Your task to perform on an android device: open chrome privacy settings Image 0: 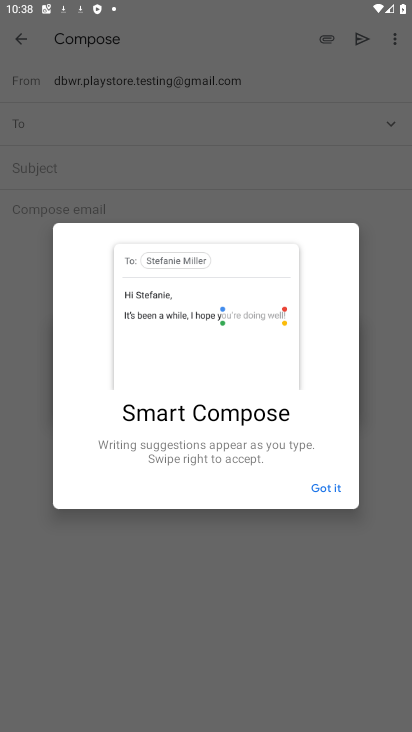
Step 0: press home button
Your task to perform on an android device: open chrome privacy settings Image 1: 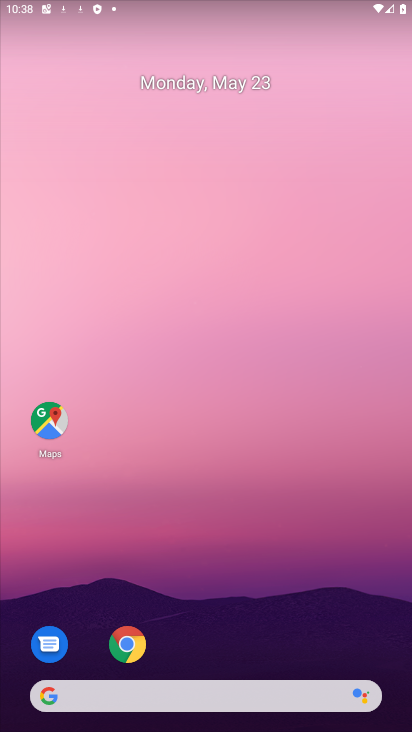
Step 1: drag from (270, 706) to (280, 76)
Your task to perform on an android device: open chrome privacy settings Image 2: 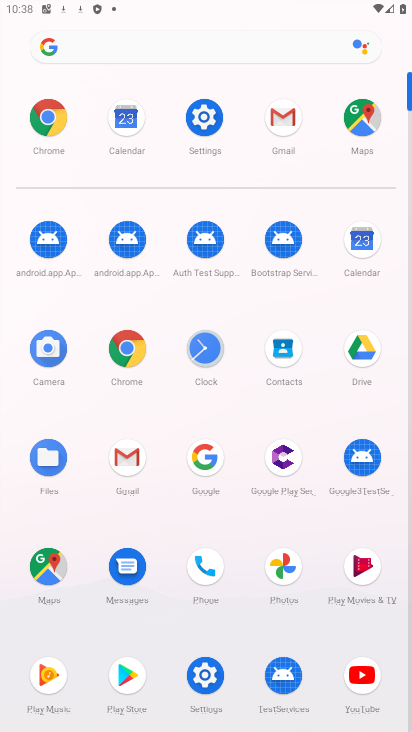
Step 2: click (204, 114)
Your task to perform on an android device: open chrome privacy settings Image 3: 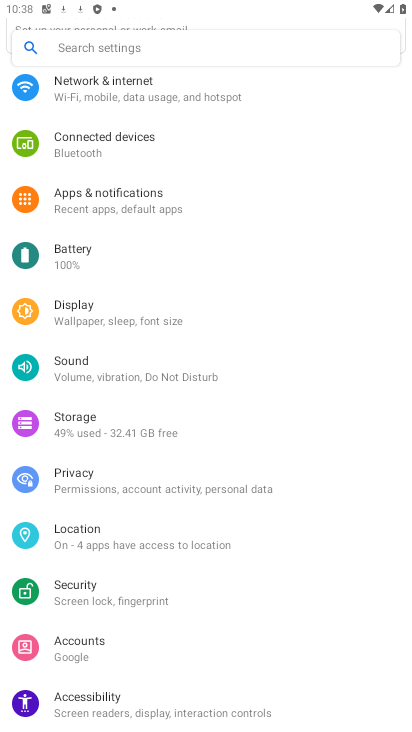
Step 3: click (169, 61)
Your task to perform on an android device: open chrome privacy settings Image 4: 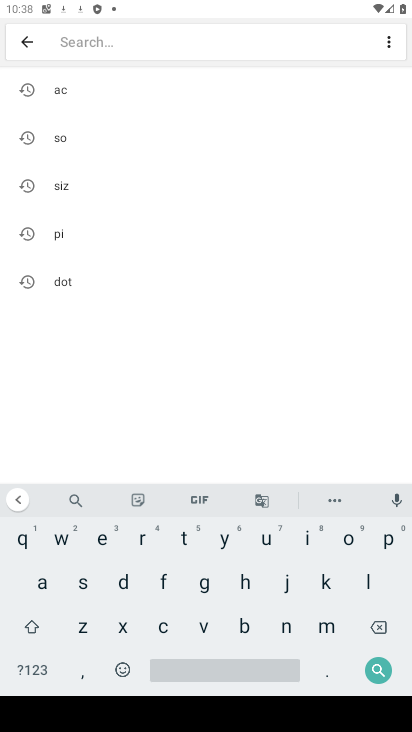
Step 4: press home button
Your task to perform on an android device: open chrome privacy settings Image 5: 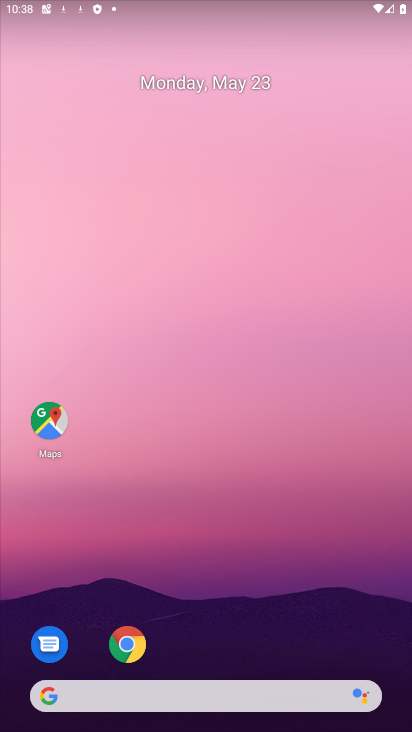
Step 5: drag from (254, 715) to (260, 75)
Your task to perform on an android device: open chrome privacy settings Image 6: 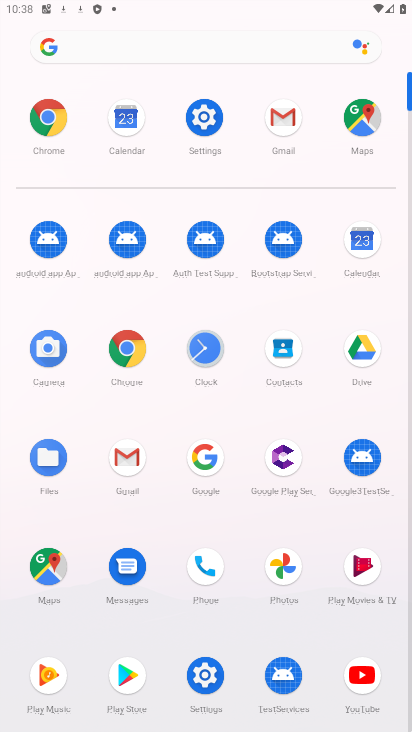
Step 6: click (46, 124)
Your task to perform on an android device: open chrome privacy settings Image 7: 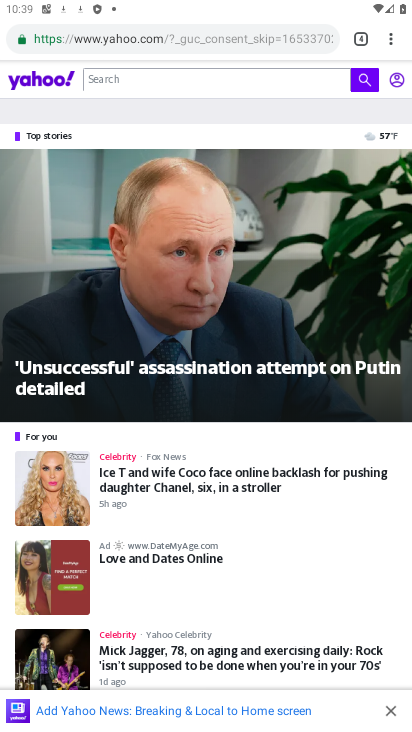
Step 7: click (391, 44)
Your task to perform on an android device: open chrome privacy settings Image 8: 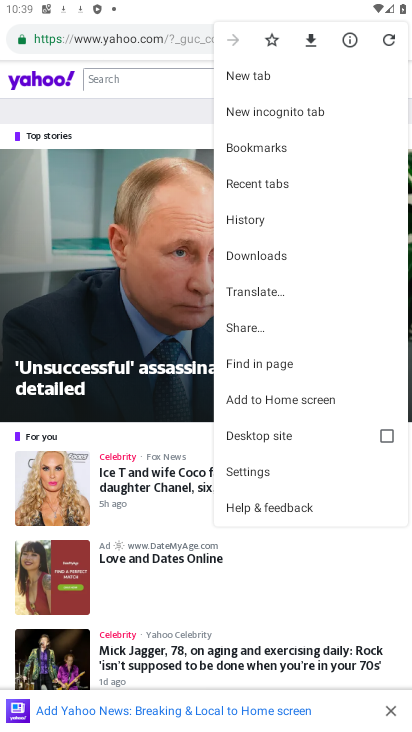
Step 8: click (250, 460)
Your task to perform on an android device: open chrome privacy settings Image 9: 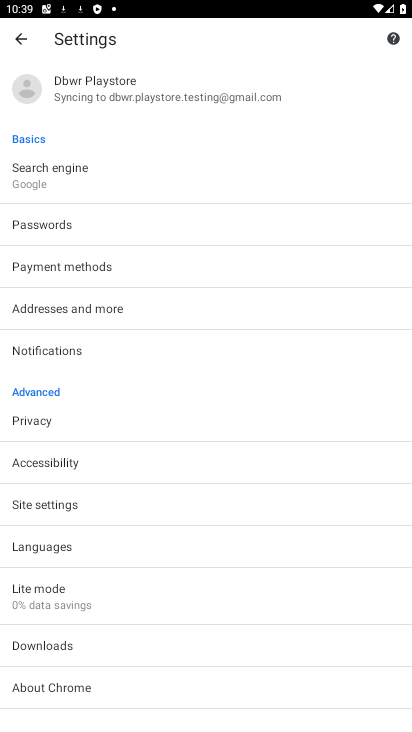
Step 9: click (81, 434)
Your task to perform on an android device: open chrome privacy settings Image 10: 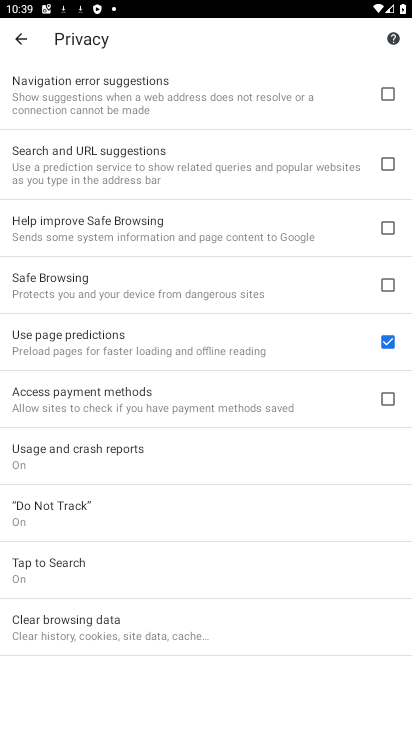
Step 10: task complete